Your task to perform on an android device: Go to display settings Image 0: 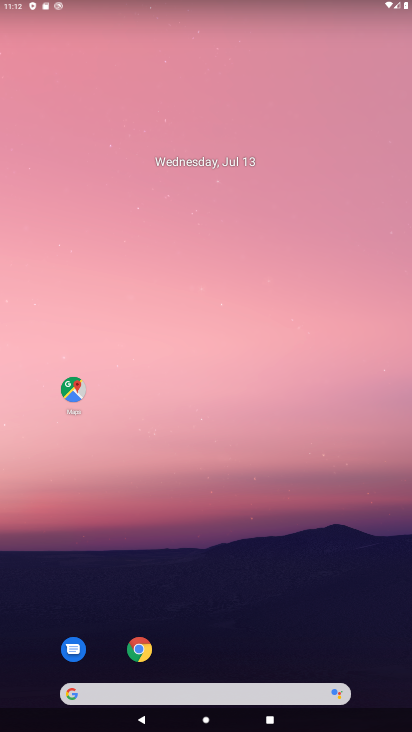
Step 0: drag from (234, 625) to (240, 225)
Your task to perform on an android device: Go to display settings Image 1: 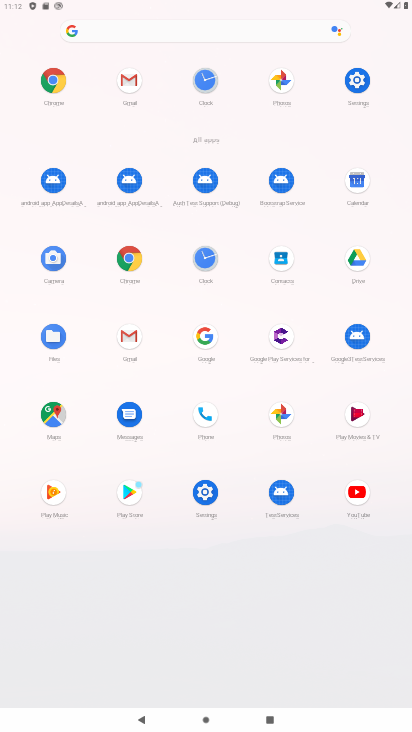
Step 1: click (207, 506)
Your task to perform on an android device: Go to display settings Image 2: 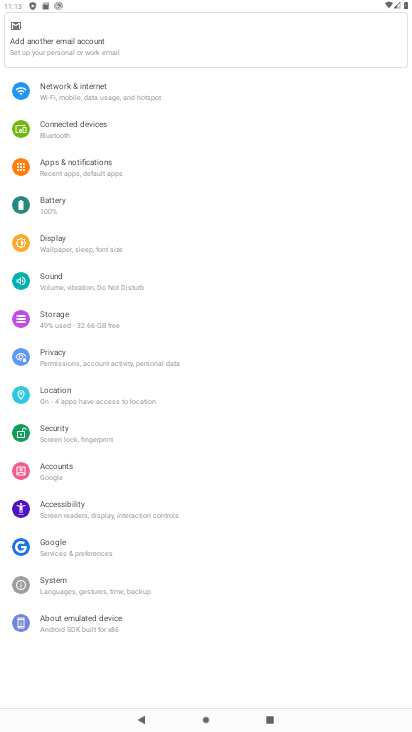
Step 2: click (82, 248)
Your task to perform on an android device: Go to display settings Image 3: 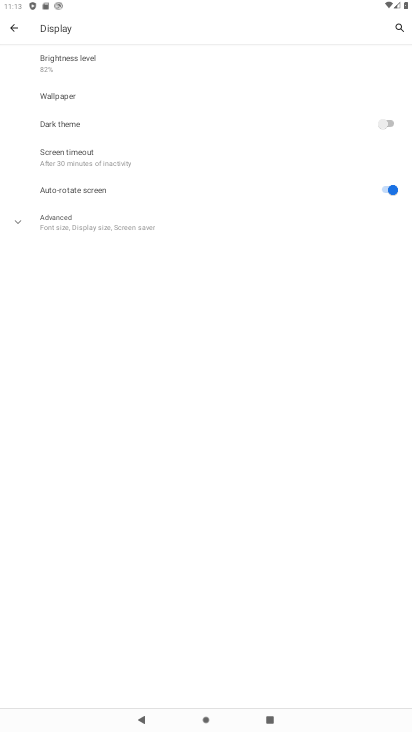
Step 3: task complete